Your task to perform on an android device: What's on my calendar today? Image 0: 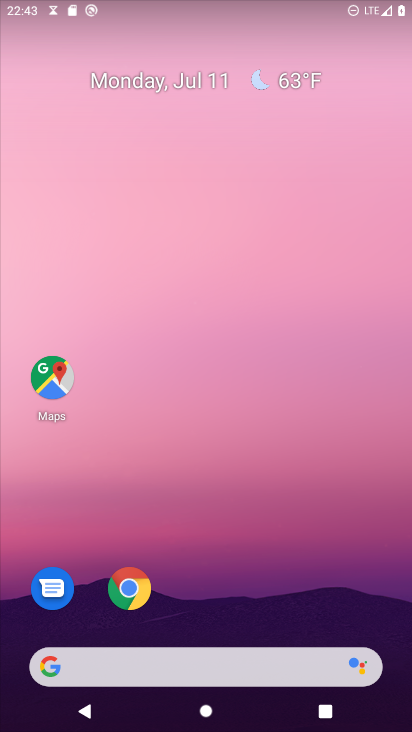
Step 0: press home button
Your task to perform on an android device: What's on my calendar today? Image 1: 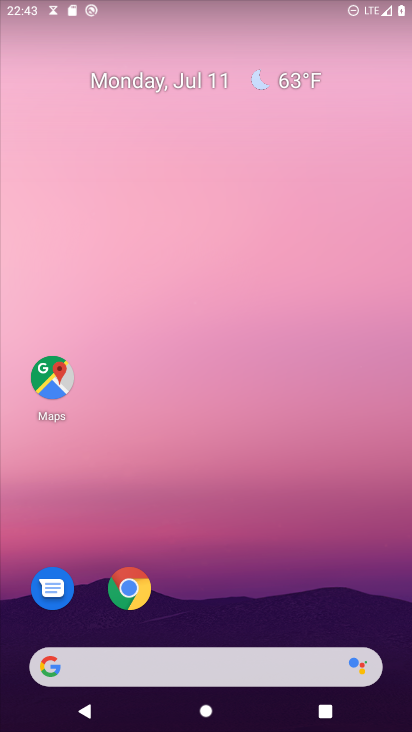
Step 1: drag from (209, 617) to (240, 39)
Your task to perform on an android device: What's on my calendar today? Image 2: 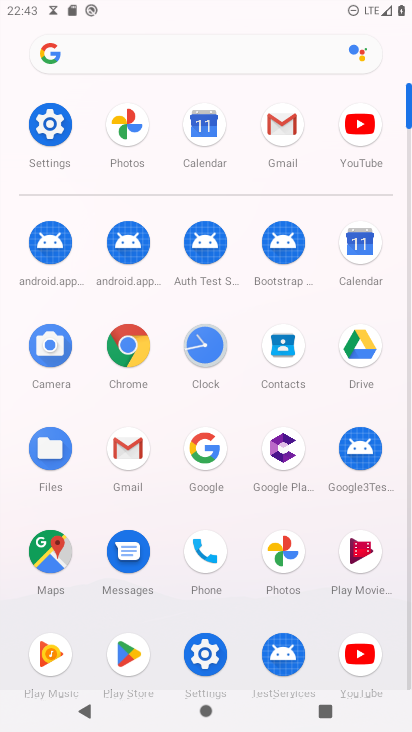
Step 2: click (365, 261)
Your task to perform on an android device: What's on my calendar today? Image 3: 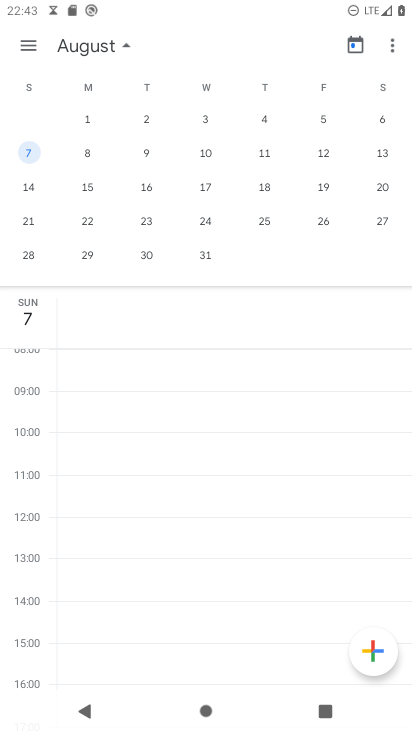
Step 3: drag from (54, 145) to (405, 205)
Your task to perform on an android device: What's on my calendar today? Image 4: 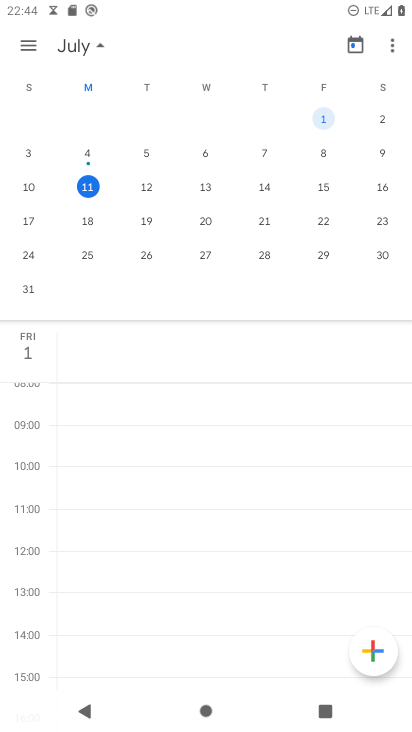
Step 4: click (90, 189)
Your task to perform on an android device: What's on my calendar today? Image 5: 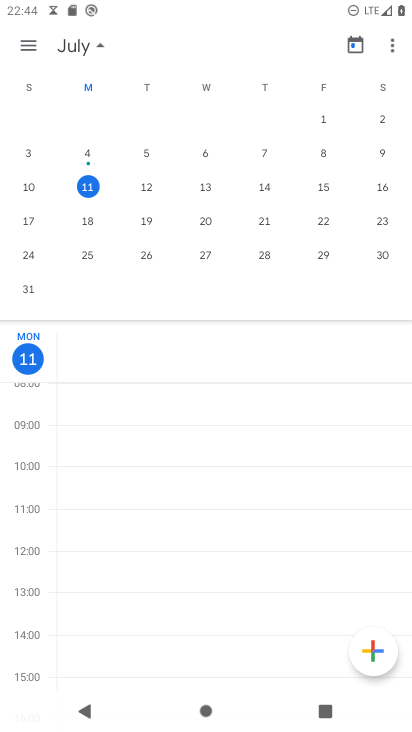
Step 5: task complete